Your task to perform on an android device: Open display settings Image 0: 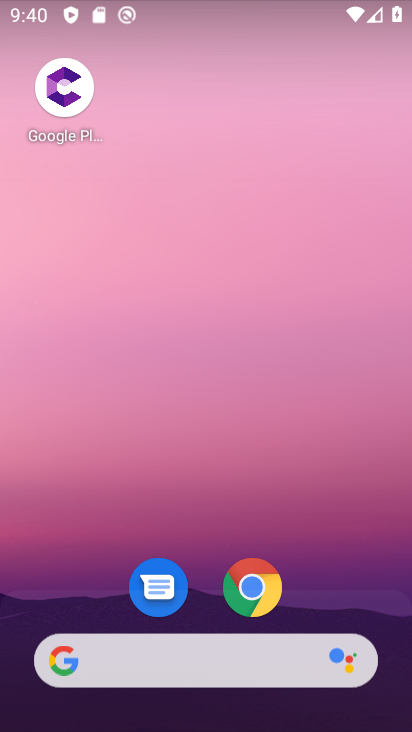
Step 0: press home button
Your task to perform on an android device: Open display settings Image 1: 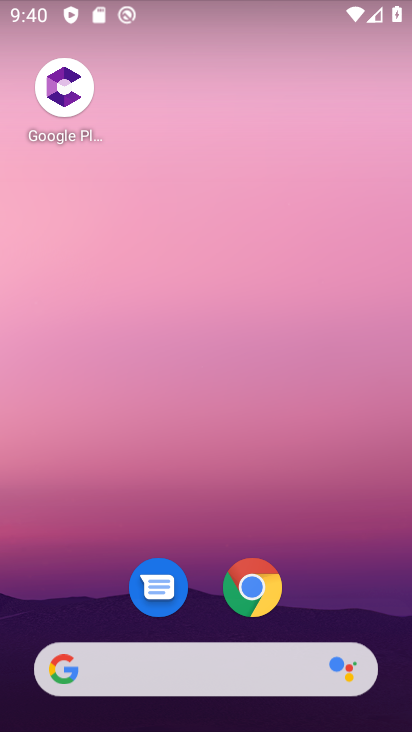
Step 1: drag from (332, 570) to (344, 0)
Your task to perform on an android device: Open display settings Image 2: 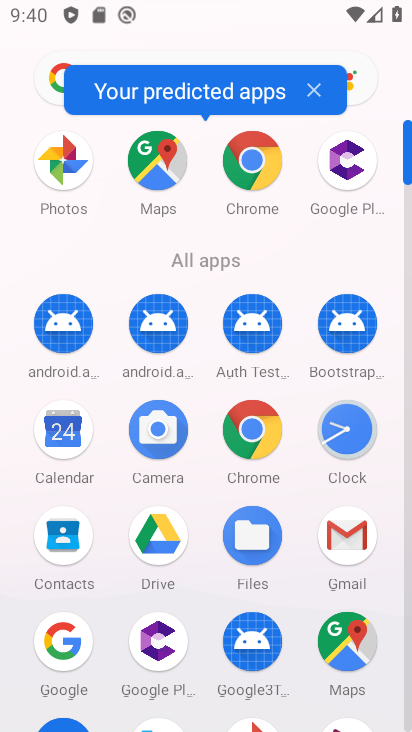
Step 2: click (409, 723)
Your task to perform on an android device: Open display settings Image 3: 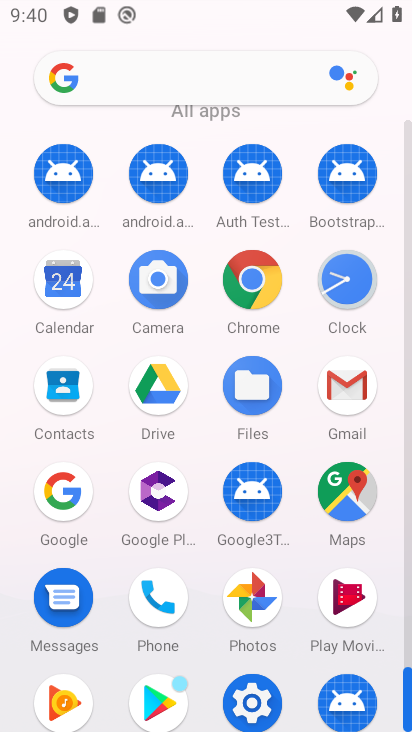
Step 3: click (259, 691)
Your task to perform on an android device: Open display settings Image 4: 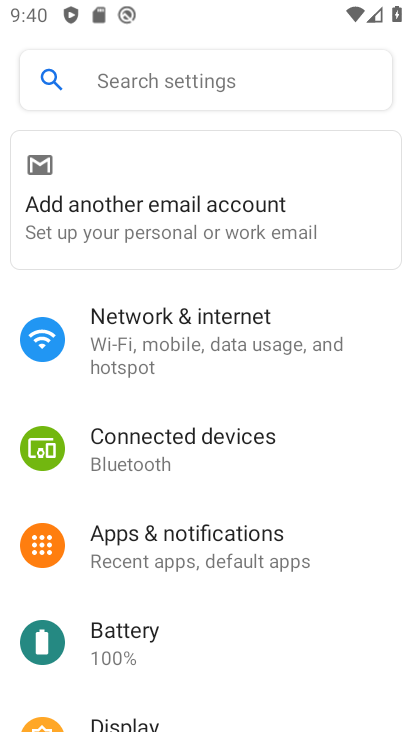
Step 4: drag from (259, 691) to (151, 218)
Your task to perform on an android device: Open display settings Image 5: 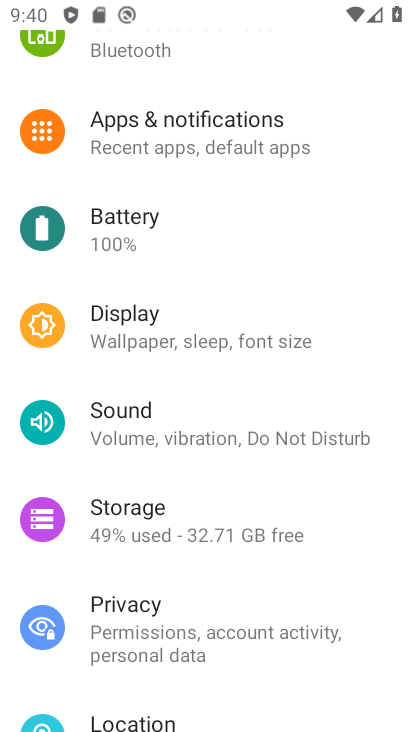
Step 5: click (142, 345)
Your task to perform on an android device: Open display settings Image 6: 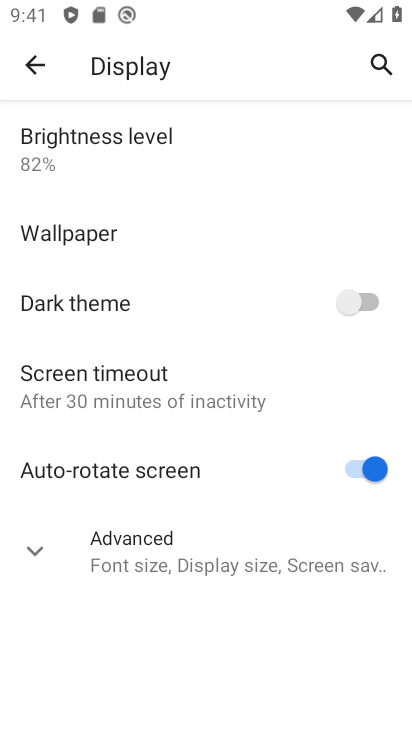
Step 6: task complete